Your task to perform on an android device: Search for the best lawnmowers on Lowes.com Image 0: 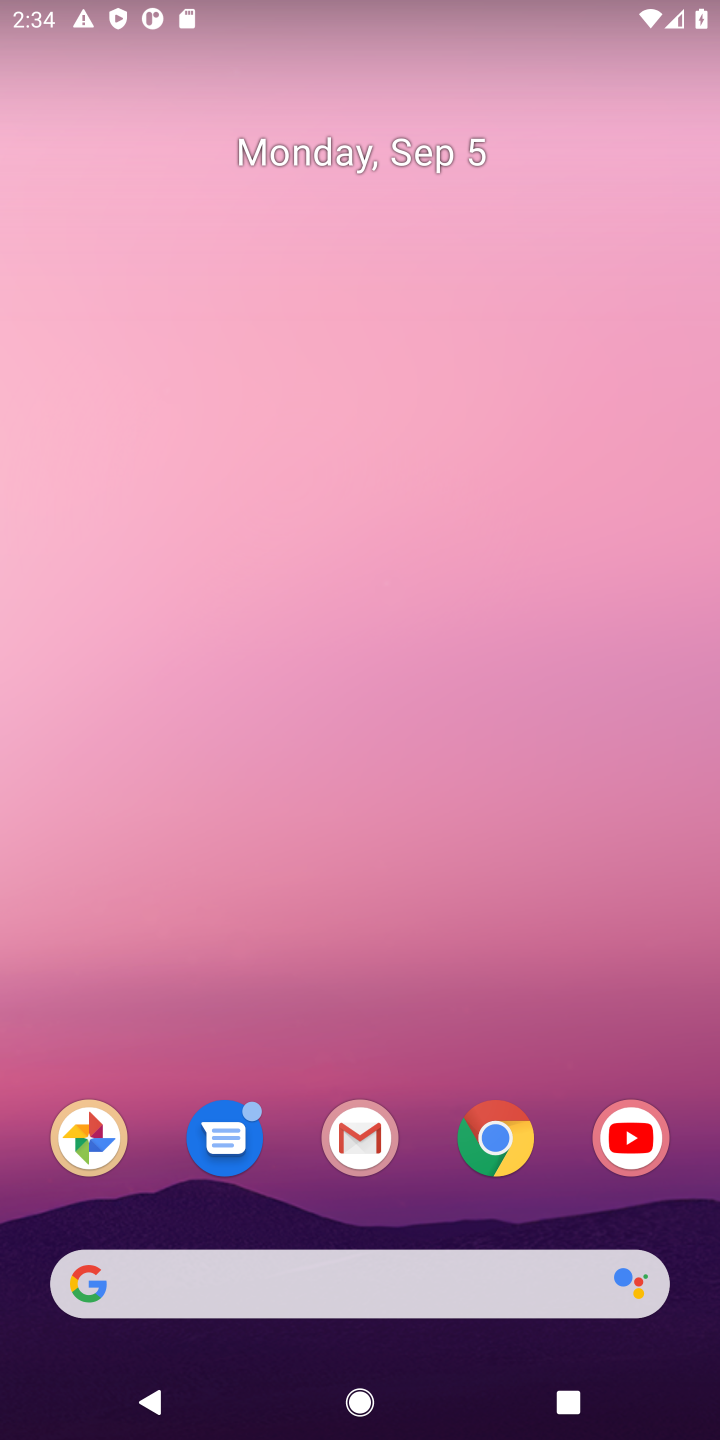
Step 0: click (498, 1134)
Your task to perform on an android device: Search for the best lawnmowers on Lowes.com Image 1: 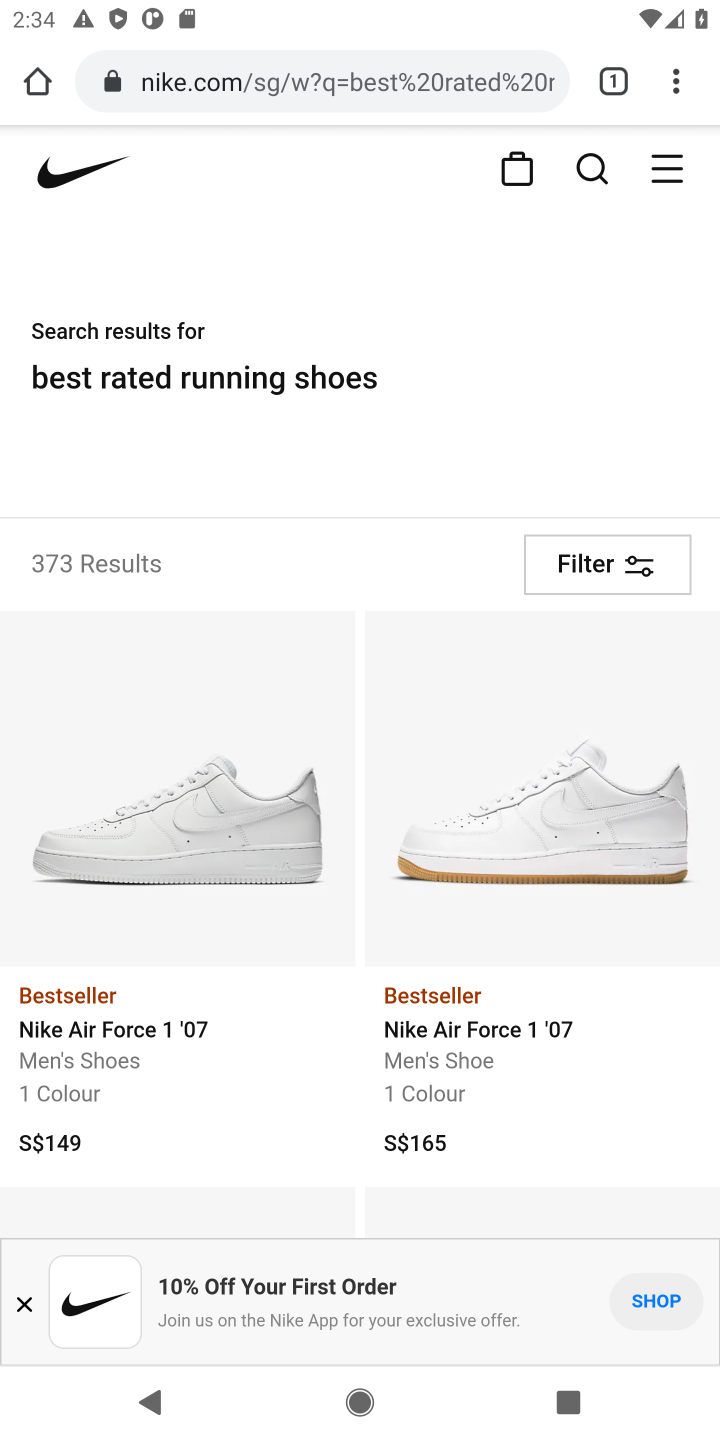
Step 1: click (477, 89)
Your task to perform on an android device: Search for the best lawnmowers on Lowes.com Image 2: 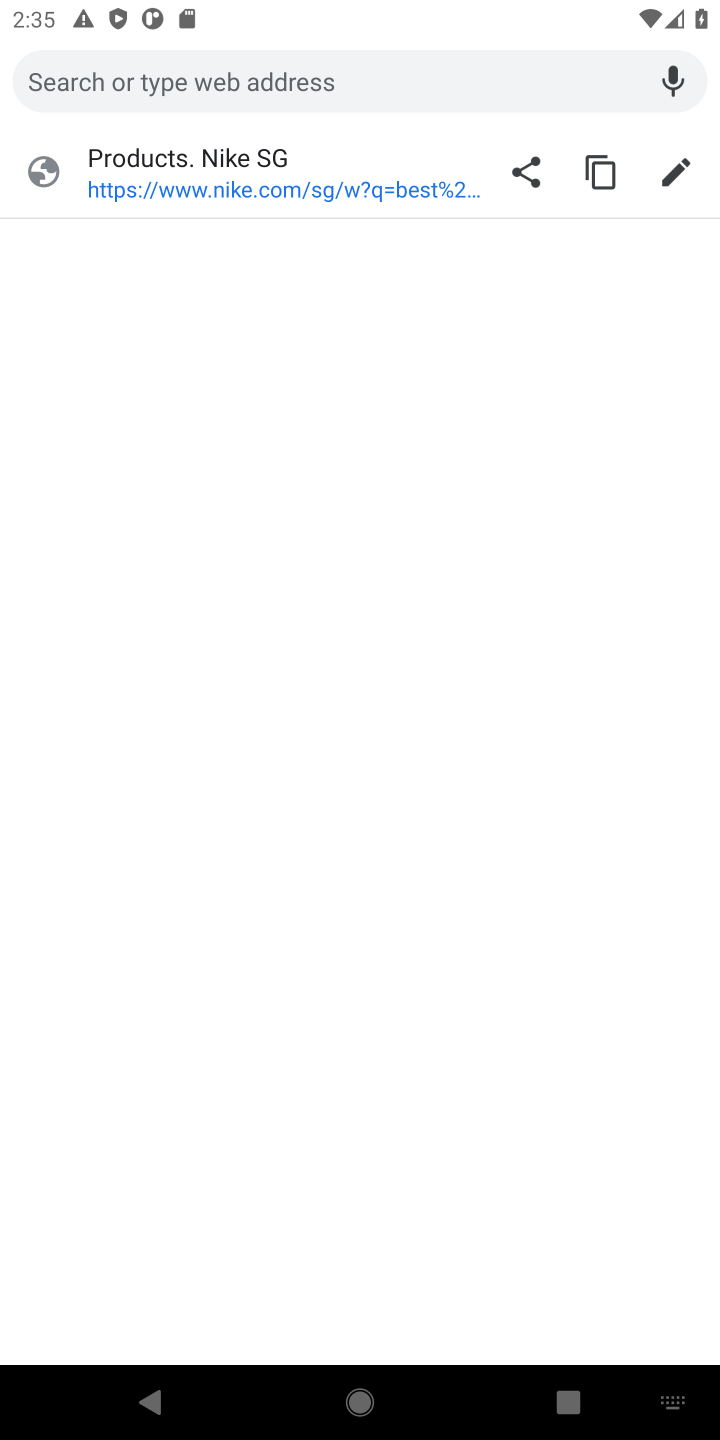
Step 2: type "Lowes.com"
Your task to perform on an android device: Search for the best lawnmowers on Lowes.com Image 3: 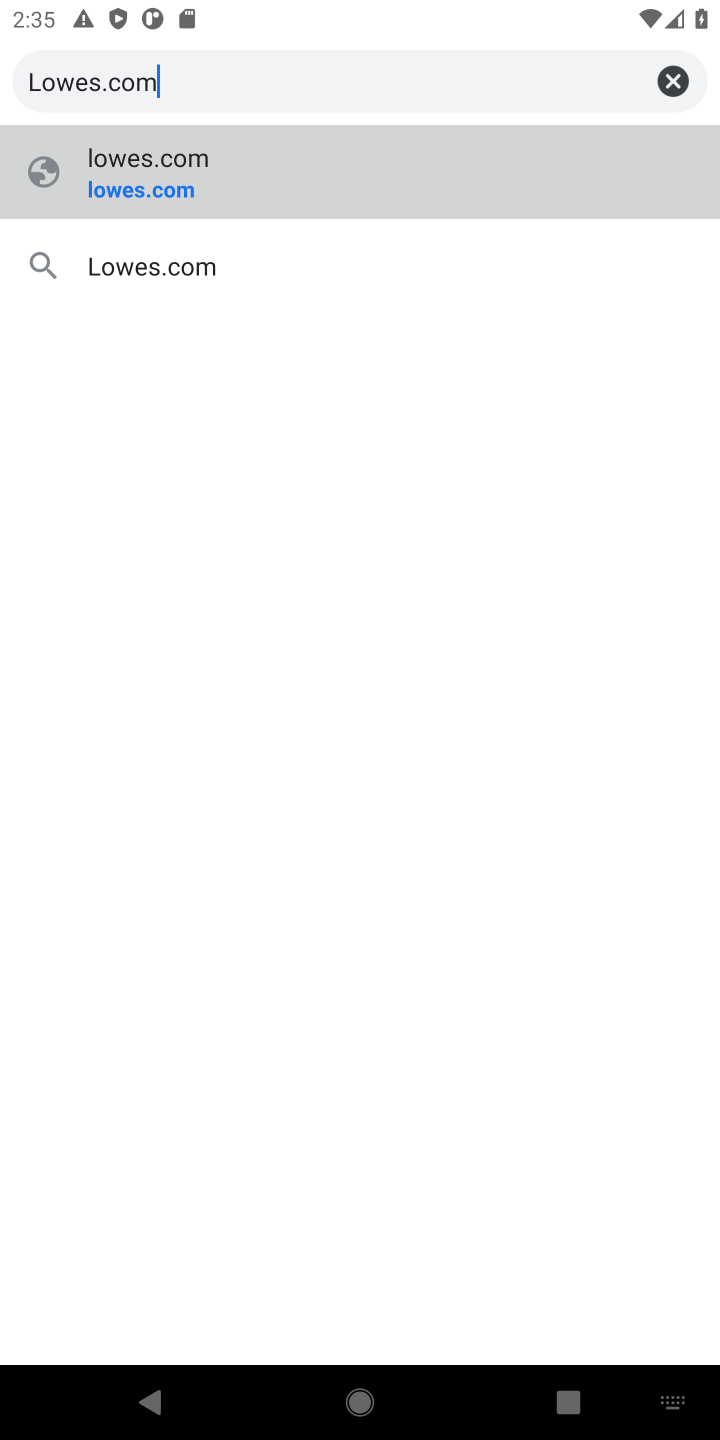
Step 3: click (162, 276)
Your task to perform on an android device: Search for the best lawnmowers on Lowes.com Image 4: 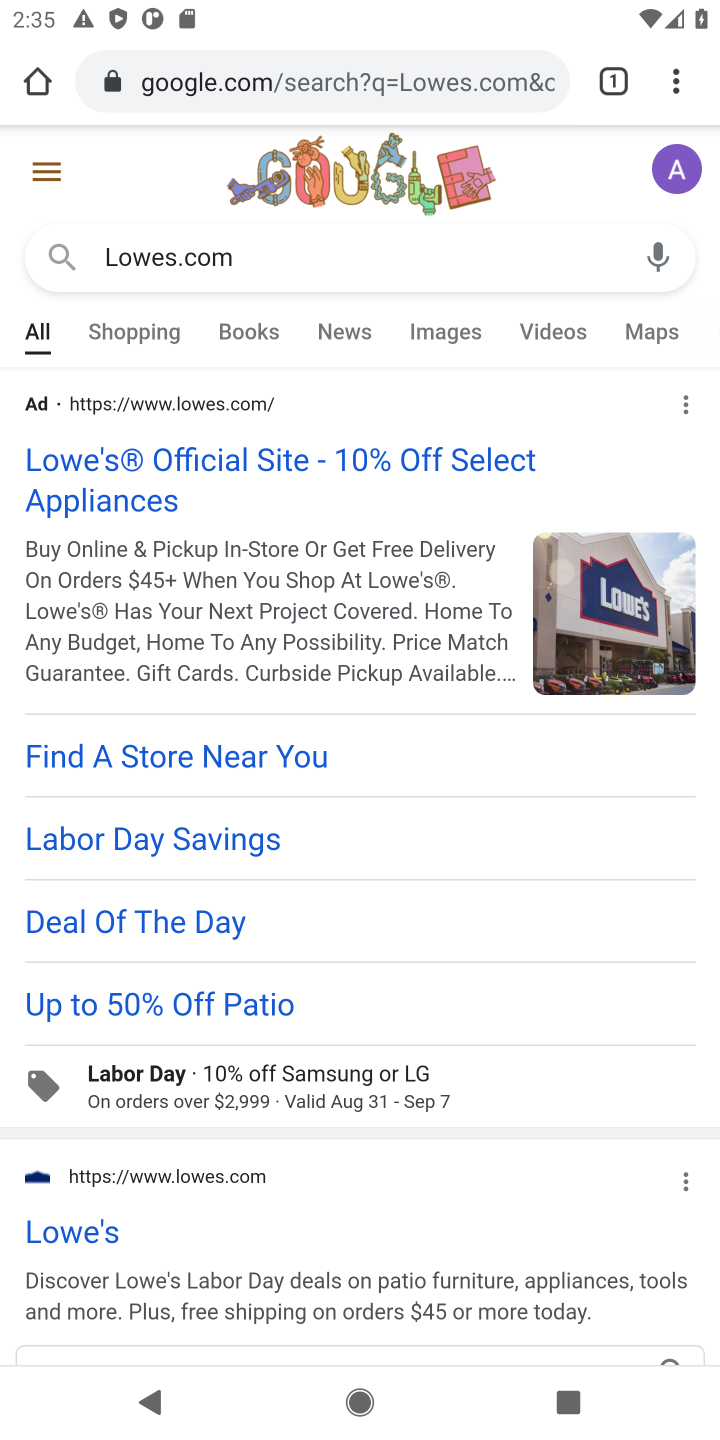
Step 4: click (91, 1246)
Your task to perform on an android device: Search for the best lawnmowers on Lowes.com Image 5: 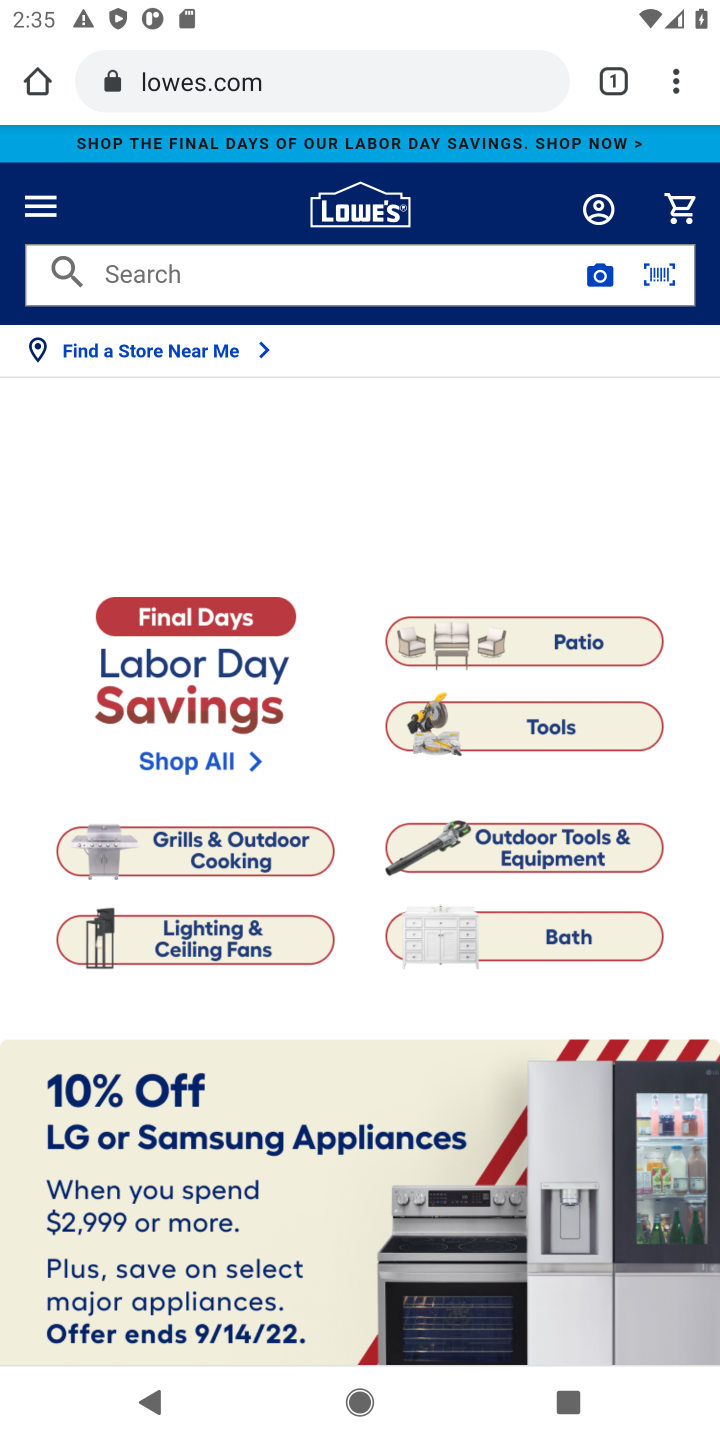
Step 5: click (321, 279)
Your task to perform on an android device: Search for the best lawnmowers on Lowes.com Image 6: 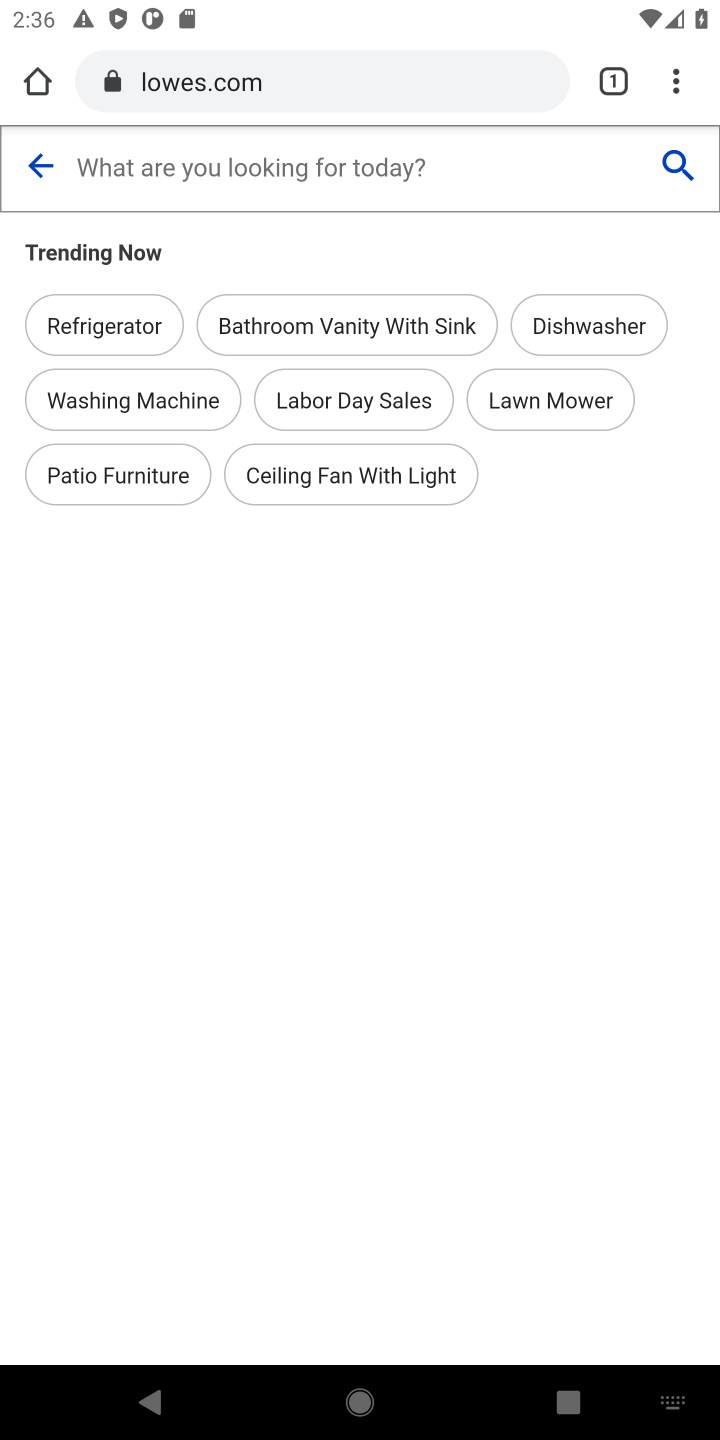
Step 6: click (309, 173)
Your task to perform on an android device: Search for the best lawnmowers on Lowes.com Image 7: 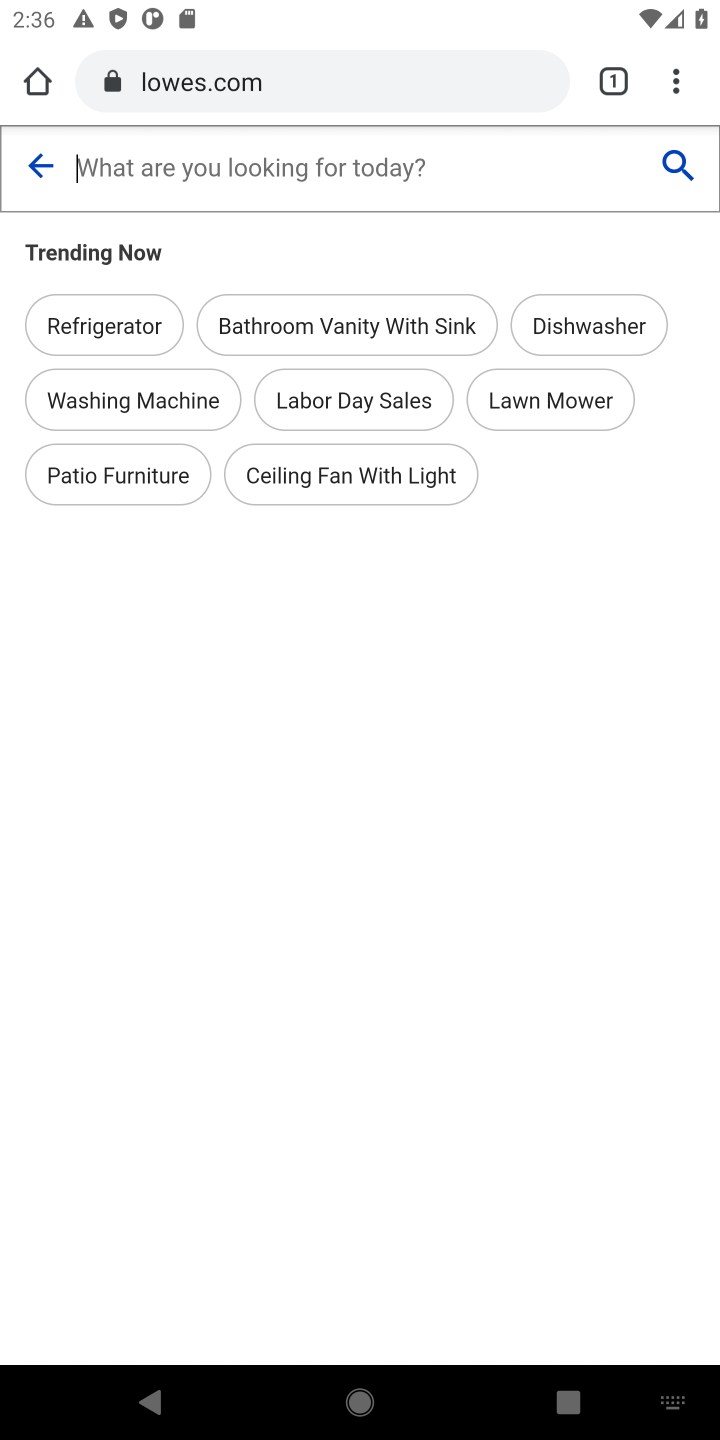
Step 7: type "best lawnmowers"
Your task to perform on an android device: Search for the best lawnmowers on Lowes.com Image 8: 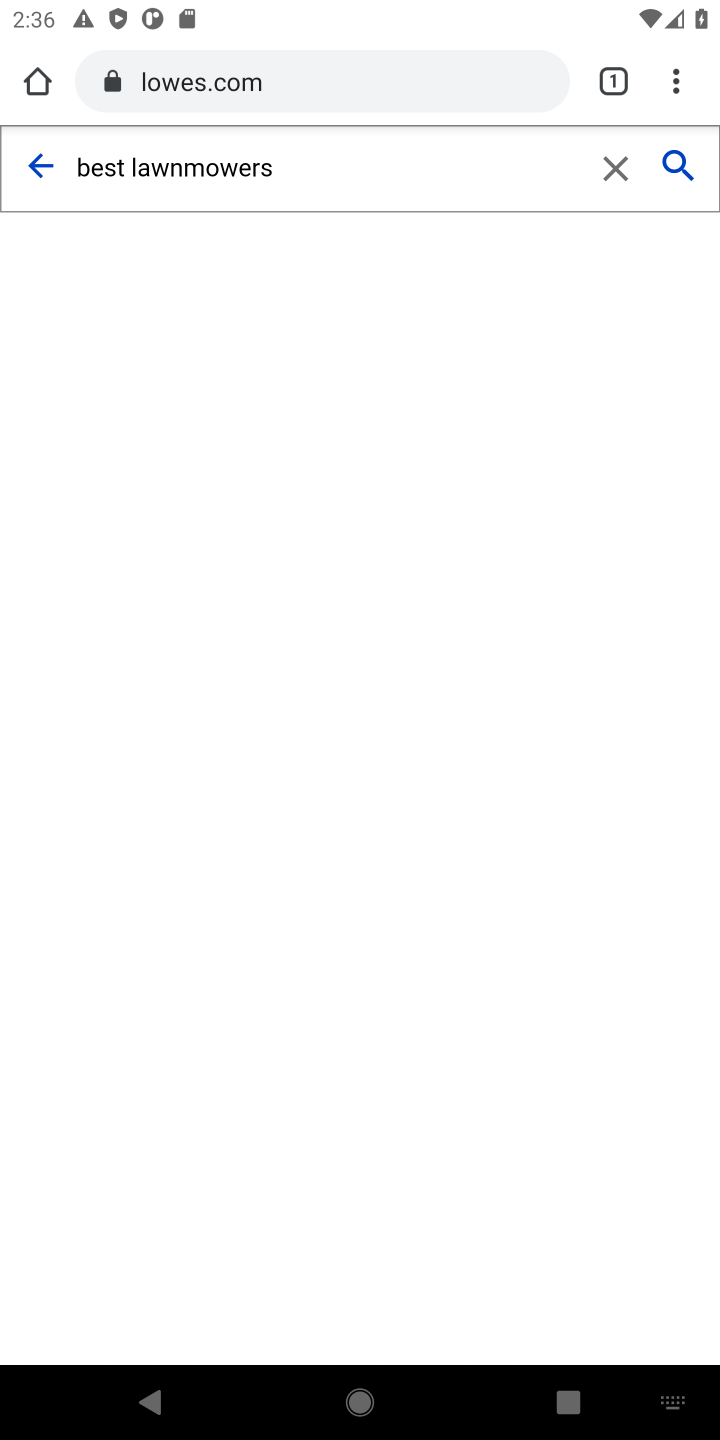
Step 8: click (668, 169)
Your task to perform on an android device: Search for the best lawnmowers on Lowes.com Image 9: 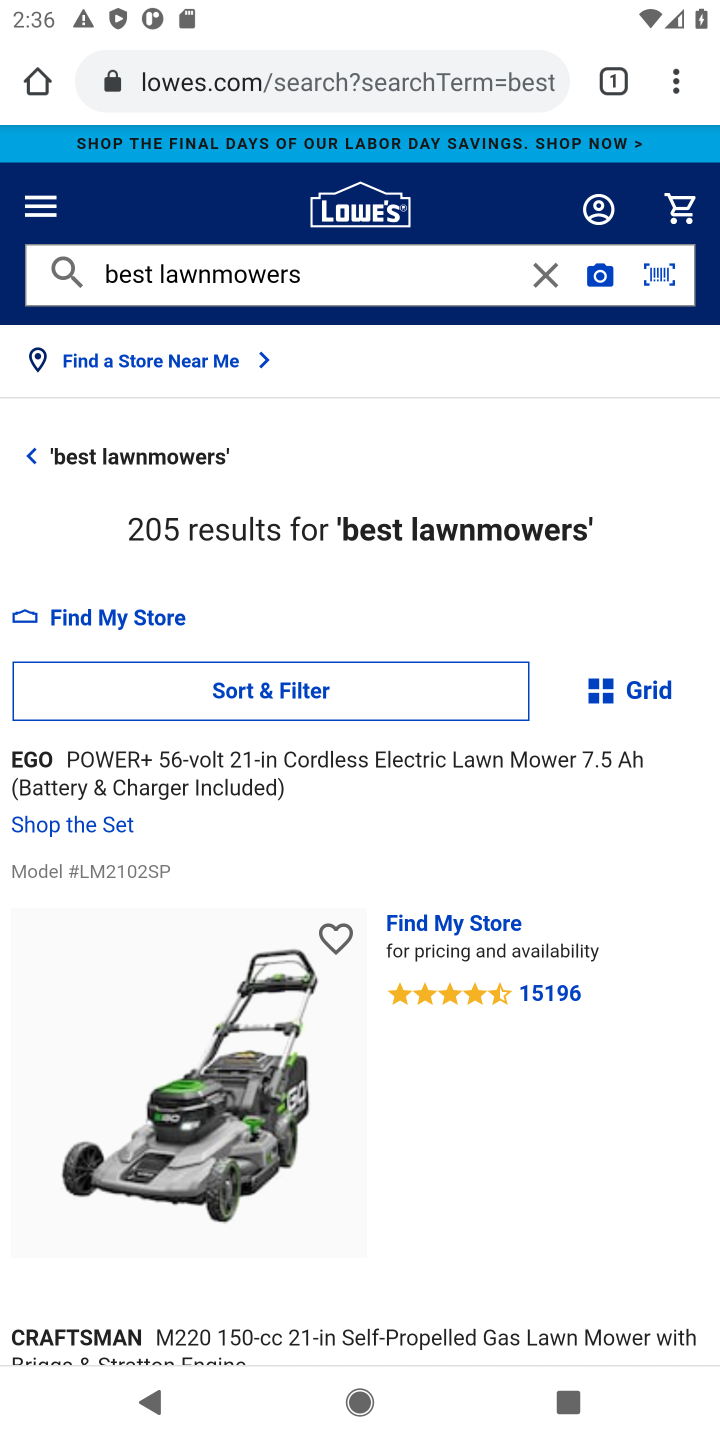
Step 9: task complete